Your task to perform on an android device: check battery use Image 0: 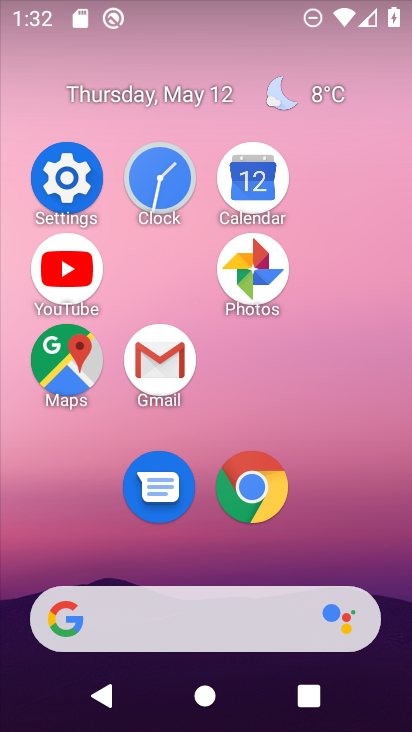
Step 0: click (50, 195)
Your task to perform on an android device: check battery use Image 1: 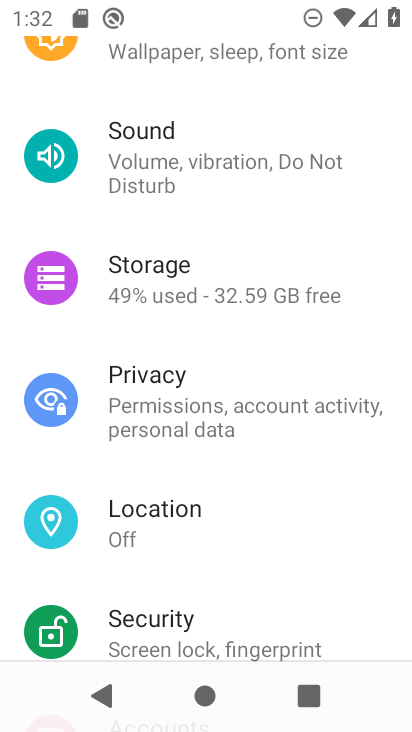
Step 1: drag from (261, 115) to (255, 546)
Your task to perform on an android device: check battery use Image 2: 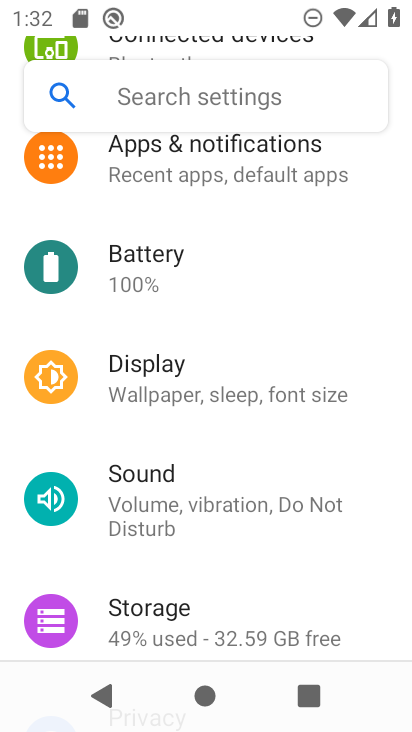
Step 2: click (217, 287)
Your task to perform on an android device: check battery use Image 3: 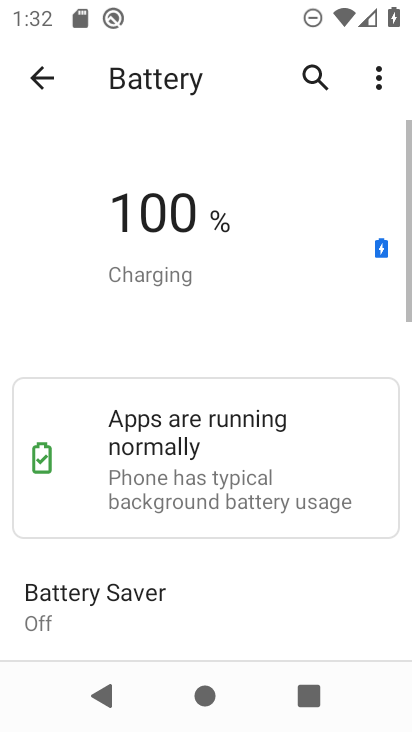
Step 3: click (387, 83)
Your task to perform on an android device: check battery use Image 4: 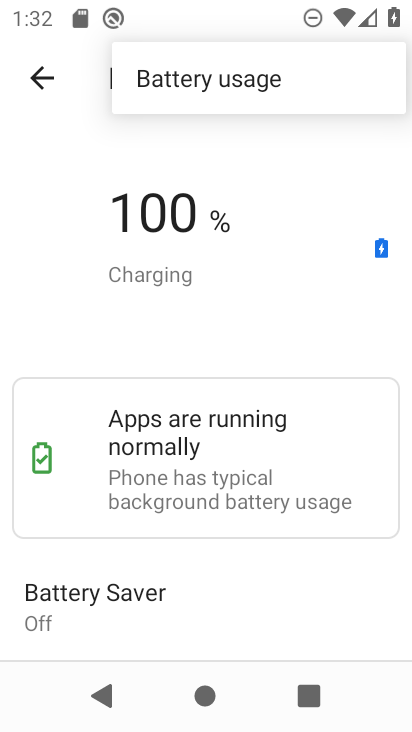
Step 4: click (345, 82)
Your task to perform on an android device: check battery use Image 5: 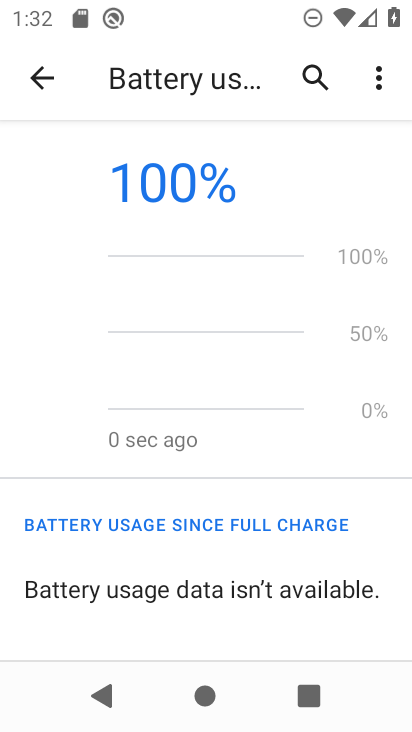
Step 5: task complete